Your task to perform on an android device: turn off smart reply in the gmail app Image 0: 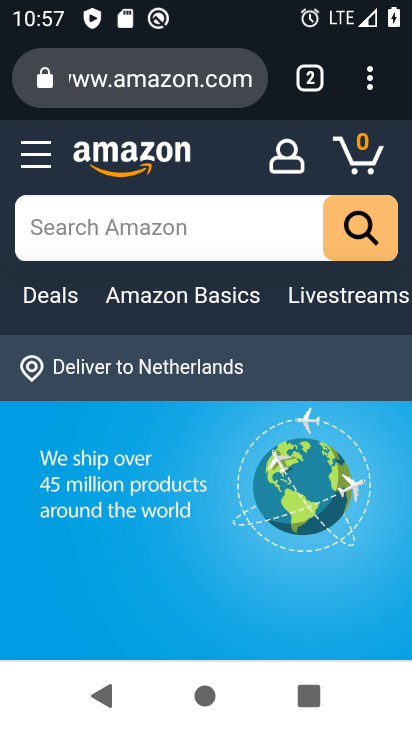
Step 0: drag from (133, 583) to (237, 263)
Your task to perform on an android device: turn off smart reply in the gmail app Image 1: 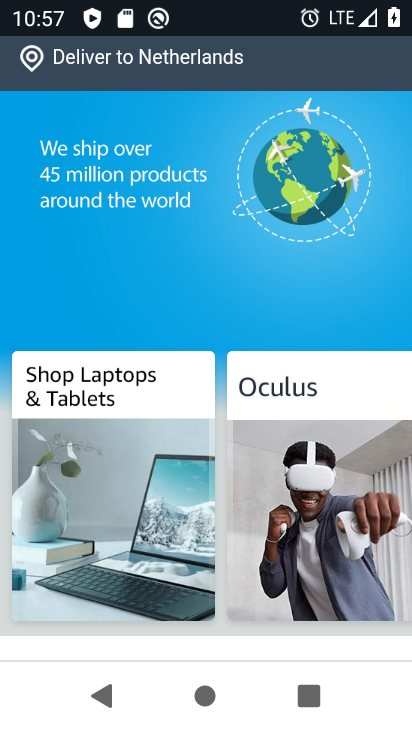
Step 1: drag from (258, 438) to (252, 183)
Your task to perform on an android device: turn off smart reply in the gmail app Image 2: 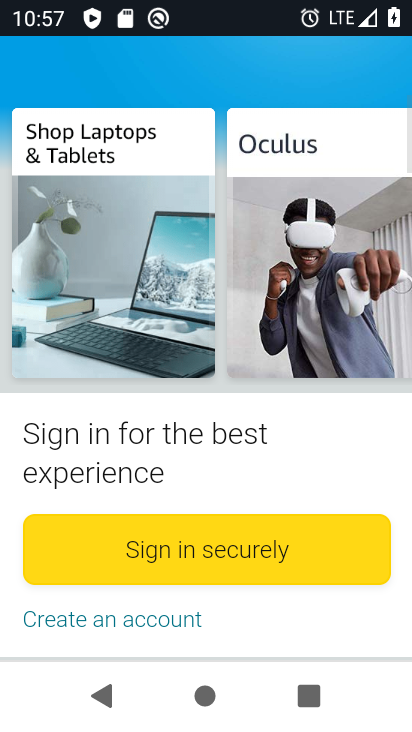
Step 2: drag from (218, 162) to (251, 637)
Your task to perform on an android device: turn off smart reply in the gmail app Image 3: 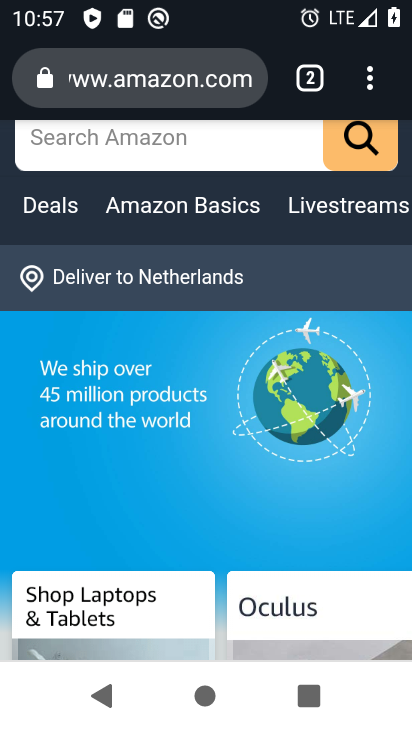
Step 3: click (367, 92)
Your task to perform on an android device: turn off smart reply in the gmail app Image 4: 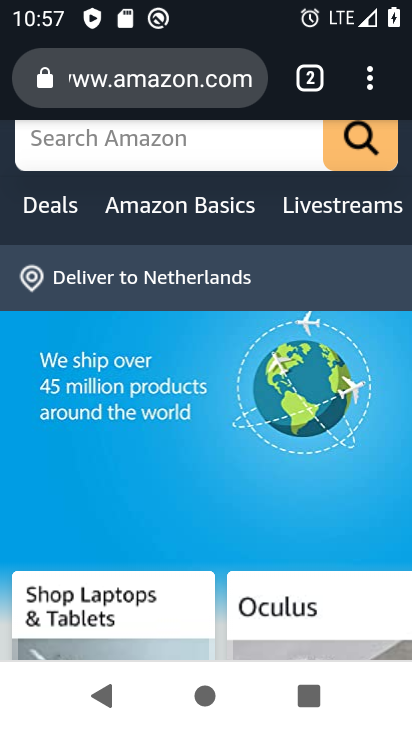
Step 4: click (370, 79)
Your task to perform on an android device: turn off smart reply in the gmail app Image 5: 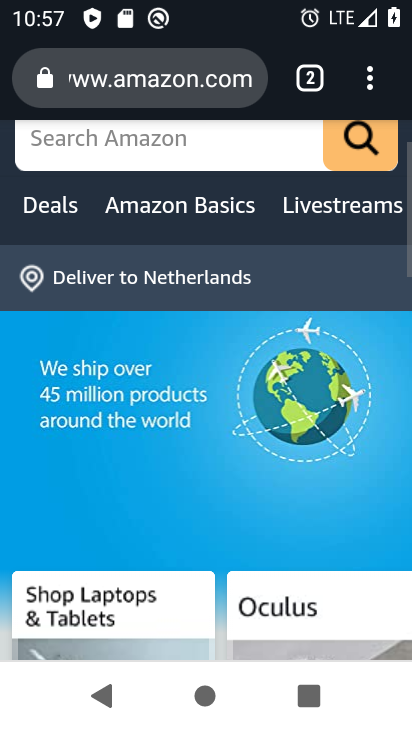
Step 5: click (370, 79)
Your task to perform on an android device: turn off smart reply in the gmail app Image 6: 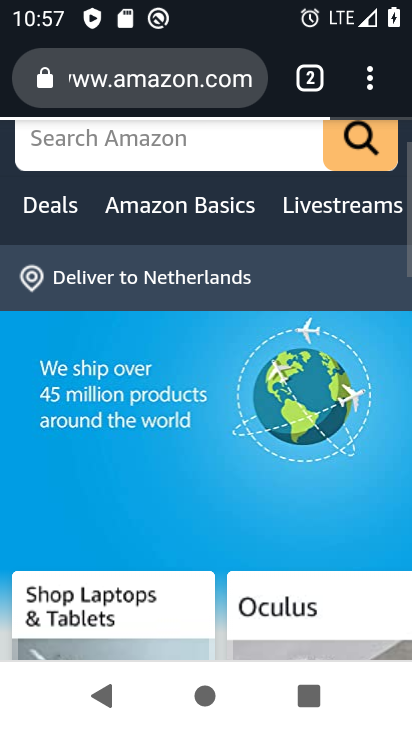
Step 6: click (370, 79)
Your task to perform on an android device: turn off smart reply in the gmail app Image 7: 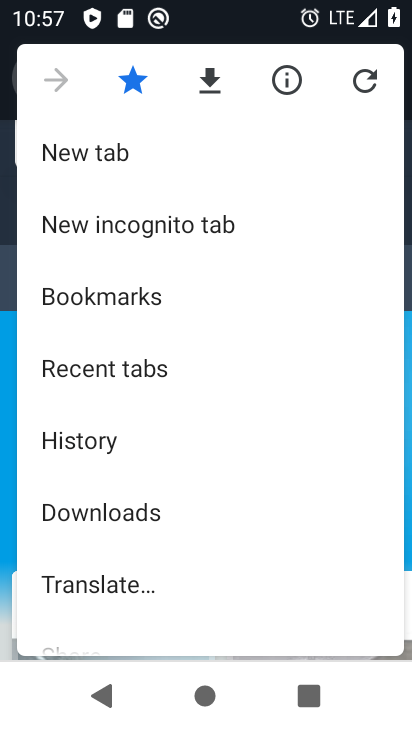
Step 7: drag from (103, 628) to (190, 202)
Your task to perform on an android device: turn off smart reply in the gmail app Image 8: 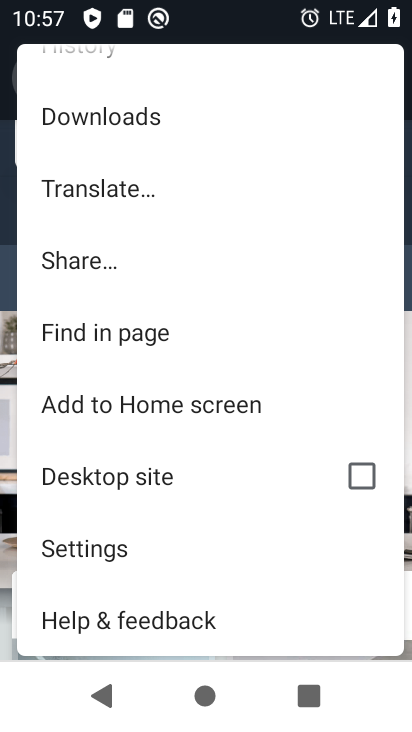
Step 8: press back button
Your task to perform on an android device: turn off smart reply in the gmail app Image 9: 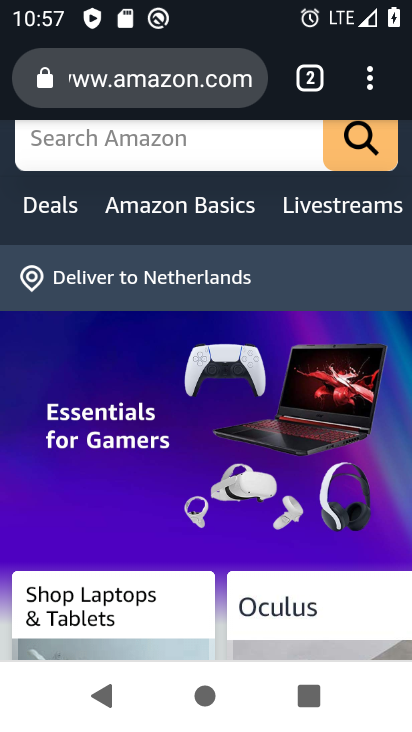
Step 9: press back button
Your task to perform on an android device: turn off smart reply in the gmail app Image 10: 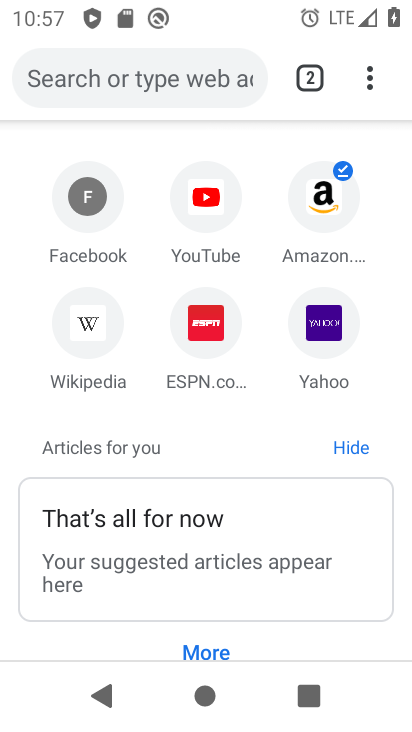
Step 10: press home button
Your task to perform on an android device: turn off smart reply in the gmail app Image 11: 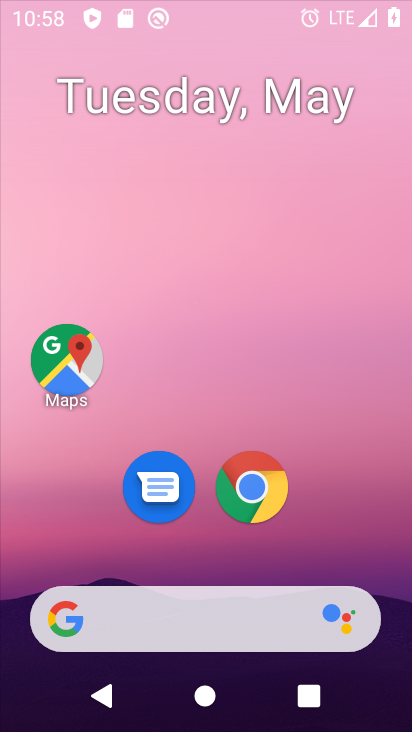
Step 11: drag from (253, 478) to (256, 189)
Your task to perform on an android device: turn off smart reply in the gmail app Image 12: 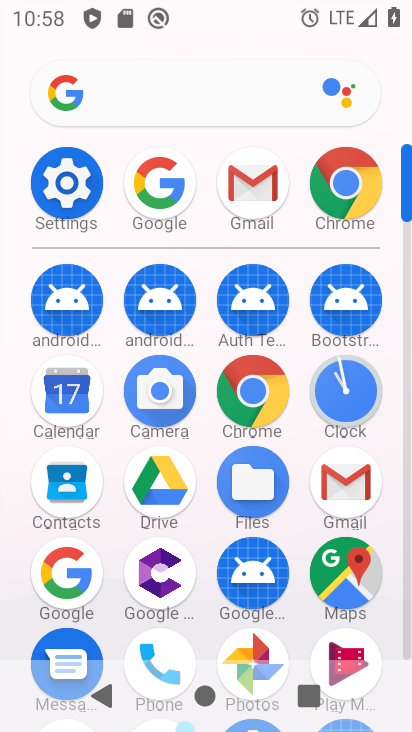
Step 12: click (358, 498)
Your task to perform on an android device: turn off smart reply in the gmail app Image 13: 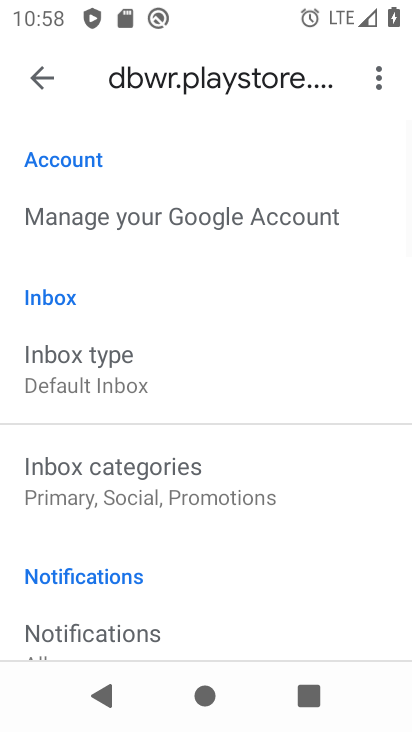
Step 13: drag from (156, 534) to (190, 199)
Your task to perform on an android device: turn off smart reply in the gmail app Image 14: 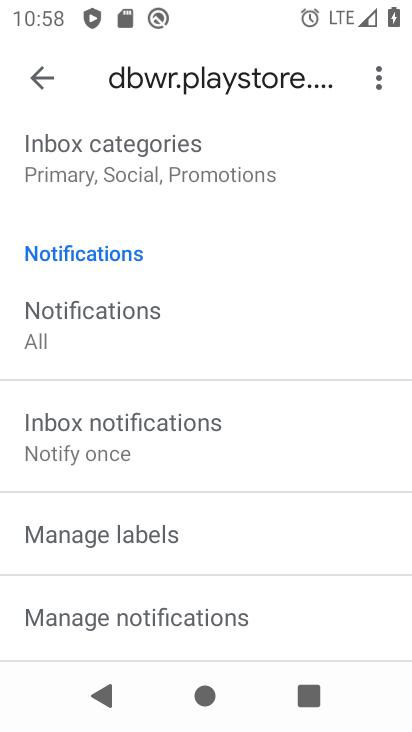
Step 14: drag from (238, 574) to (280, 202)
Your task to perform on an android device: turn off smart reply in the gmail app Image 15: 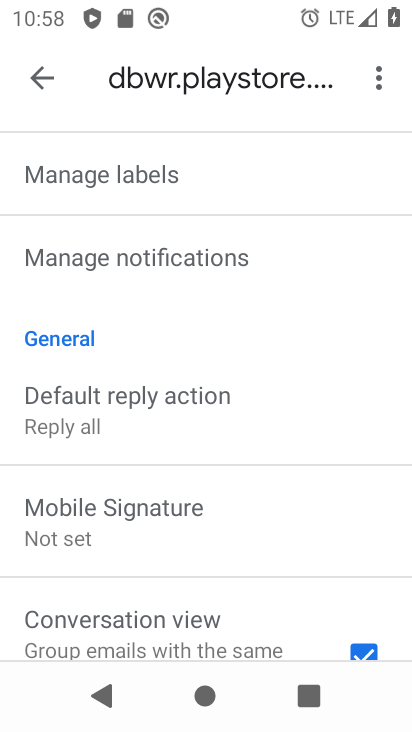
Step 15: drag from (299, 513) to (329, 157)
Your task to perform on an android device: turn off smart reply in the gmail app Image 16: 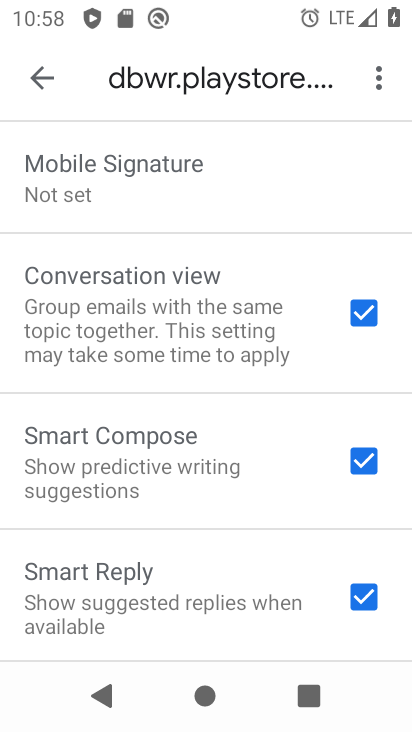
Step 16: click (359, 591)
Your task to perform on an android device: turn off smart reply in the gmail app Image 17: 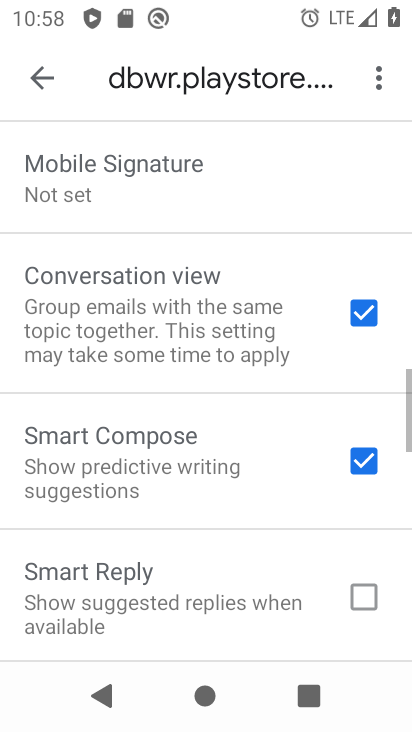
Step 17: task complete